Your task to perform on an android device: Open settings on Google Maps Image 0: 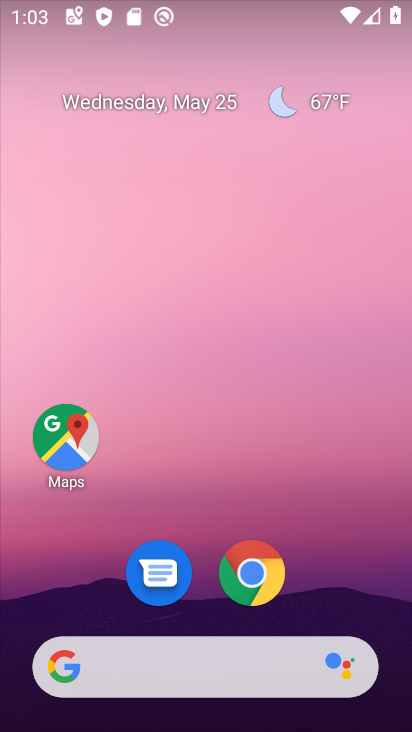
Step 0: click (71, 434)
Your task to perform on an android device: Open settings on Google Maps Image 1: 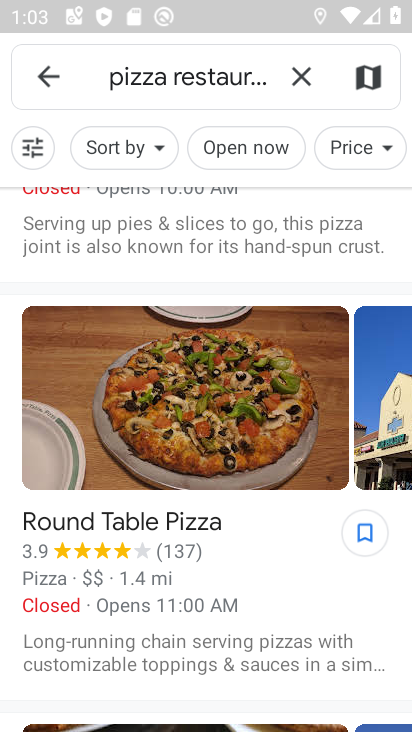
Step 1: click (301, 76)
Your task to perform on an android device: Open settings on Google Maps Image 2: 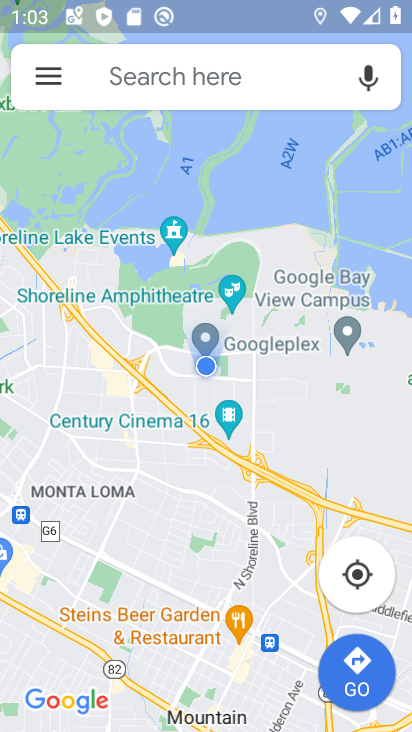
Step 2: click (56, 74)
Your task to perform on an android device: Open settings on Google Maps Image 3: 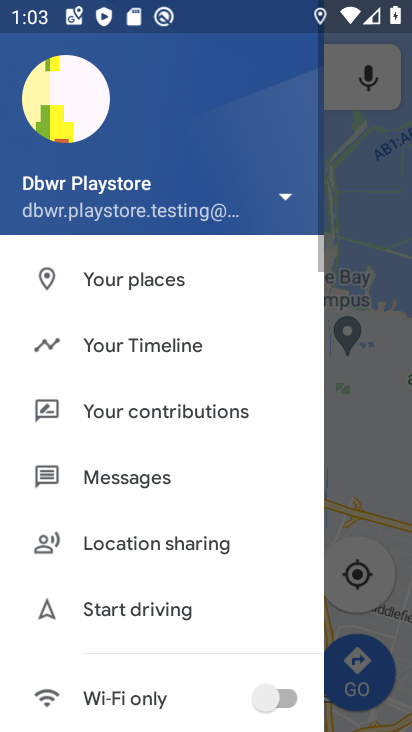
Step 3: drag from (253, 540) to (232, 97)
Your task to perform on an android device: Open settings on Google Maps Image 4: 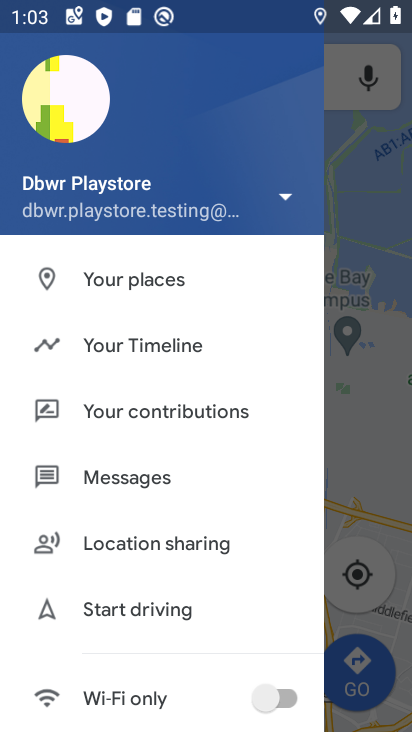
Step 4: drag from (229, 613) to (268, 188)
Your task to perform on an android device: Open settings on Google Maps Image 5: 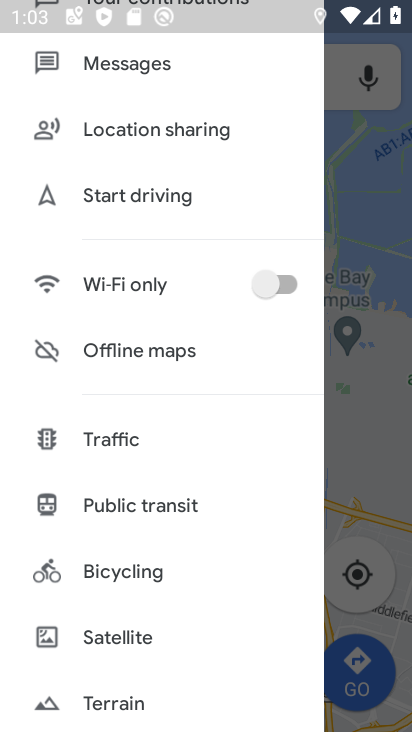
Step 5: drag from (202, 655) to (234, 172)
Your task to perform on an android device: Open settings on Google Maps Image 6: 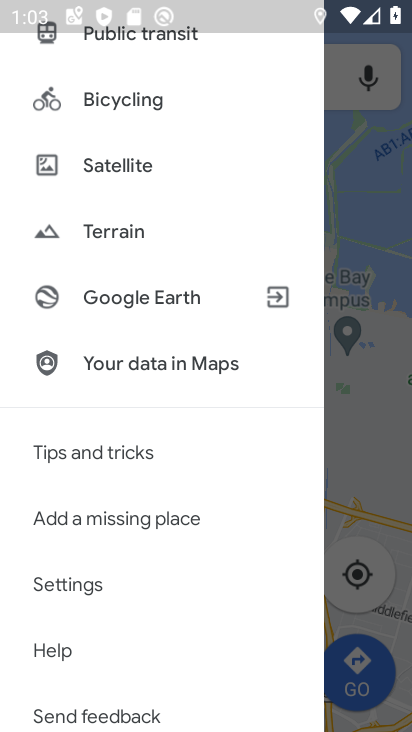
Step 6: click (40, 582)
Your task to perform on an android device: Open settings on Google Maps Image 7: 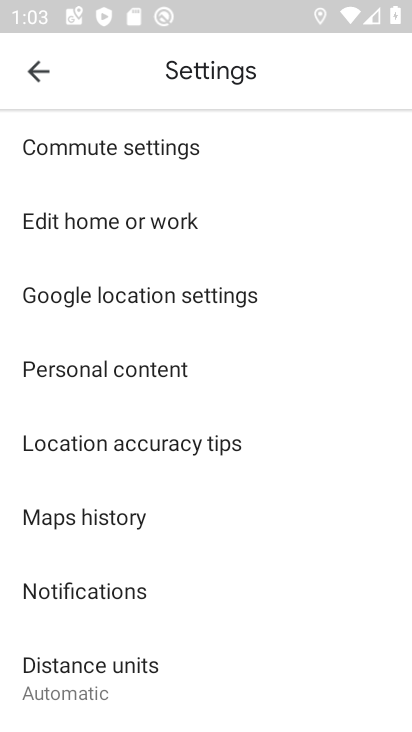
Step 7: click (104, 363)
Your task to perform on an android device: Open settings on Google Maps Image 8: 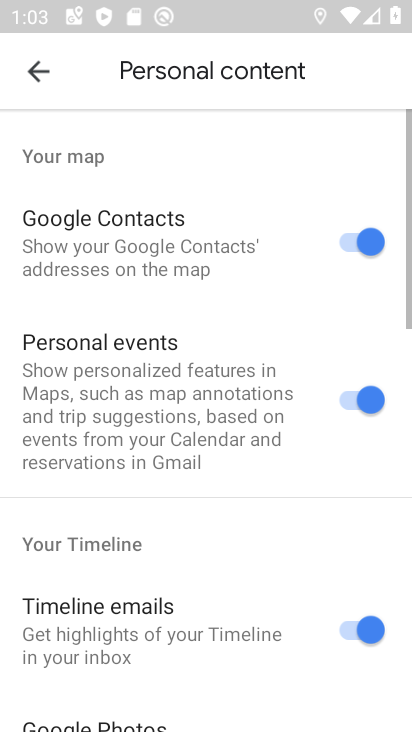
Step 8: task complete